Your task to perform on an android device: search for starred emails in the gmail app Image 0: 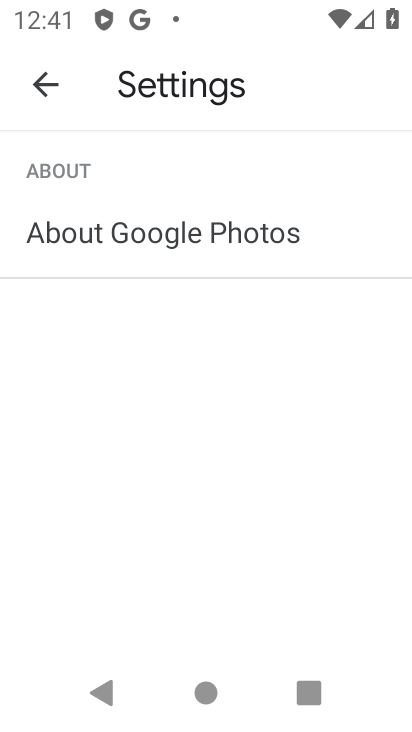
Step 0: press home button
Your task to perform on an android device: search for starred emails in the gmail app Image 1: 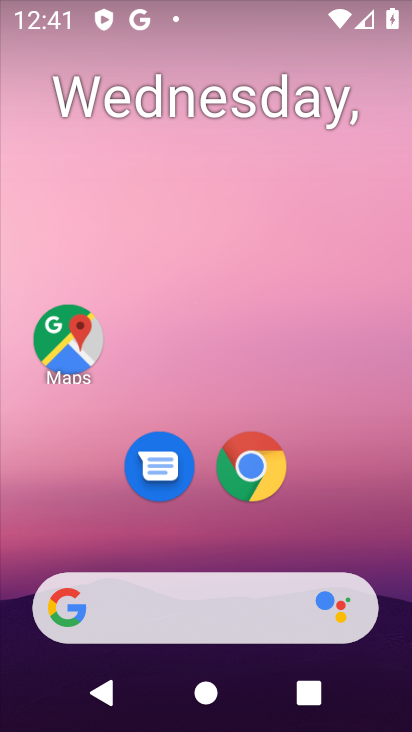
Step 1: drag from (341, 485) to (348, 0)
Your task to perform on an android device: search for starred emails in the gmail app Image 2: 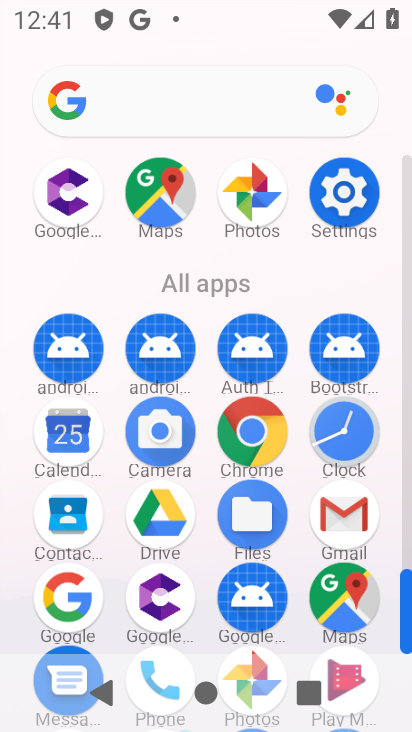
Step 2: click (354, 525)
Your task to perform on an android device: search for starred emails in the gmail app Image 3: 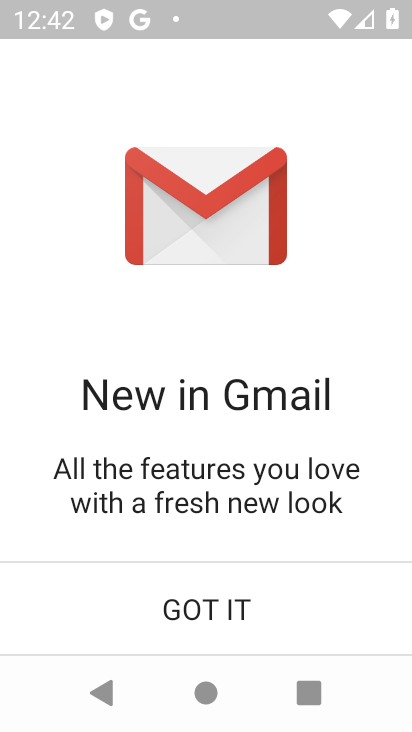
Step 3: click (257, 599)
Your task to perform on an android device: search for starred emails in the gmail app Image 4: 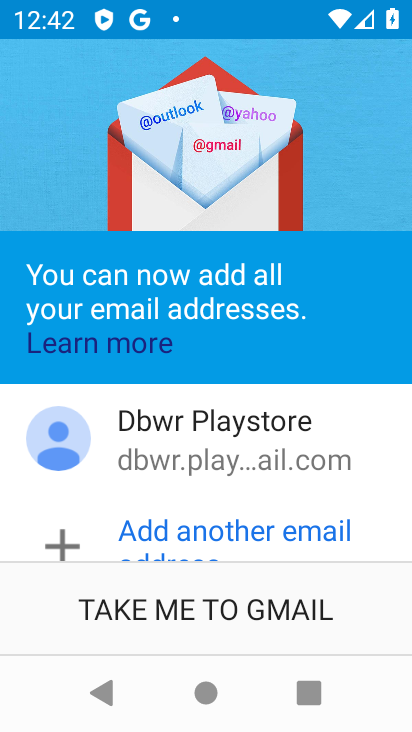
Step 4: click (229, 593)
Your task to perform on an android device: search for starred emails in the gmail app Image 5: 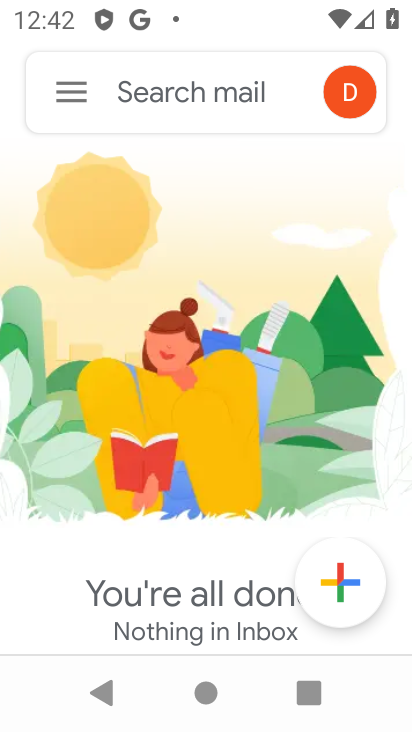
Step 5: click (64, 105)
Your task to perform on an android device: search for starred emails in the gmail app Image 6: 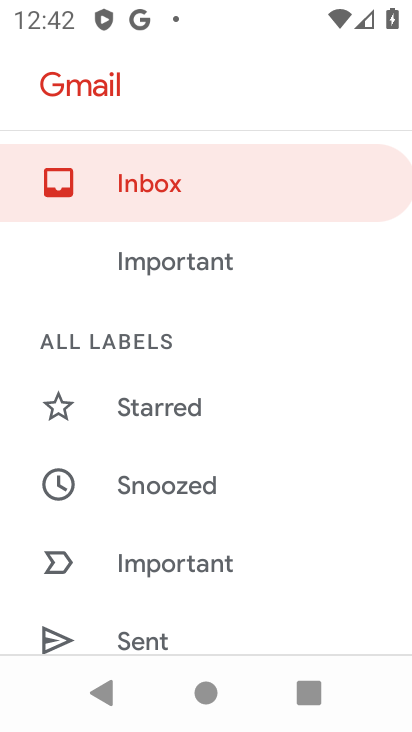
Step 6: click (160, 414)
Your task to perform on an android device: search for starred emails in the gmail app Image 7: 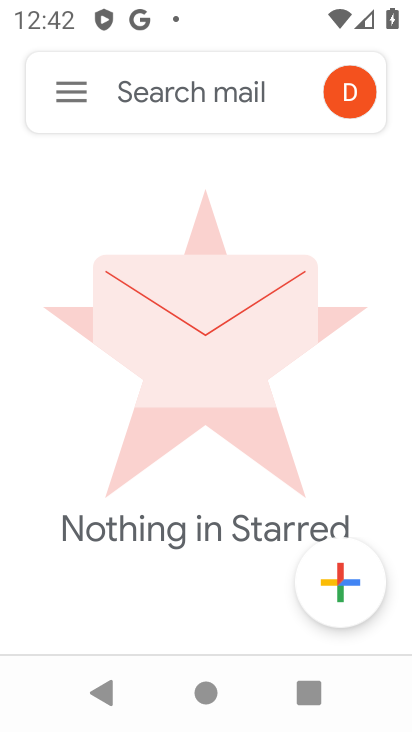
Step 7: task complete